Your task to perform on an android device: Turn off the flashlight Image 0: 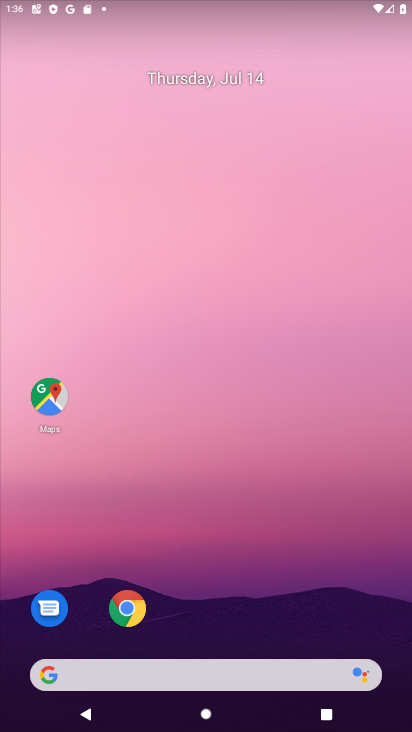
Step 0: press home button
Your task to perform on an android device: Turn off the flashlight Image 1: 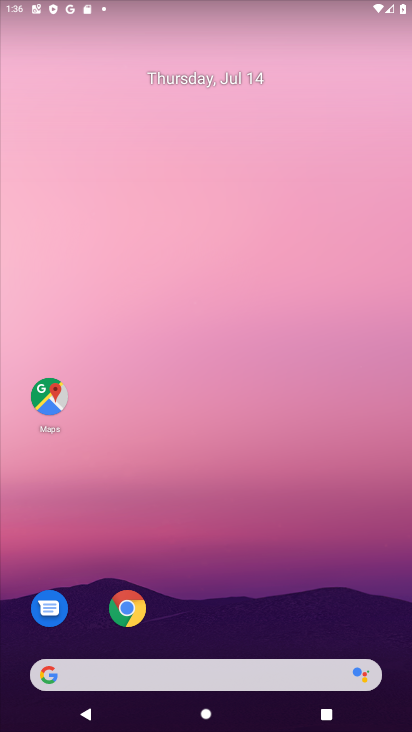
Step 1: drag from (277, 684) to (195, 166)
Your task to perform on an android device: Turn off the flashlight Image 2: 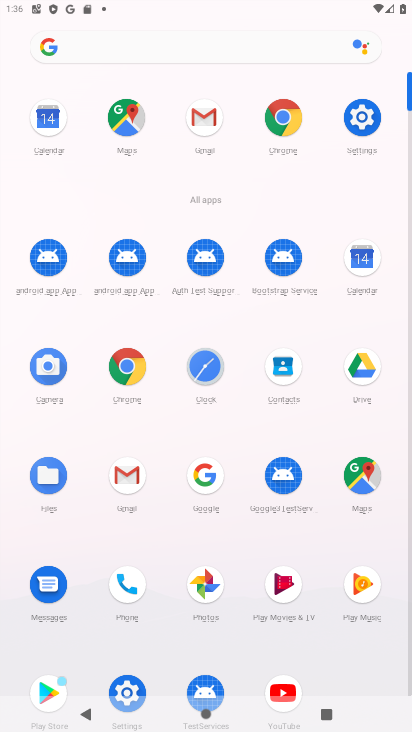
Step 2: click (352, 135)
Your task to perform on an android device: Turn off the flashlight Image 3: 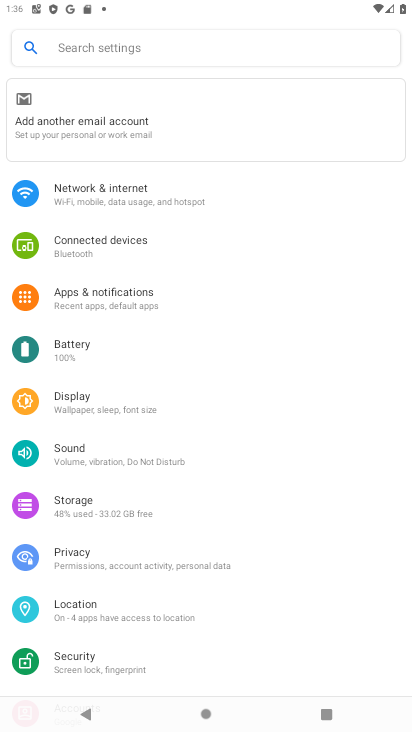
Step 3: click (102, 54)
Your task to perform on an android device: Turn off the flashlight Image 4: 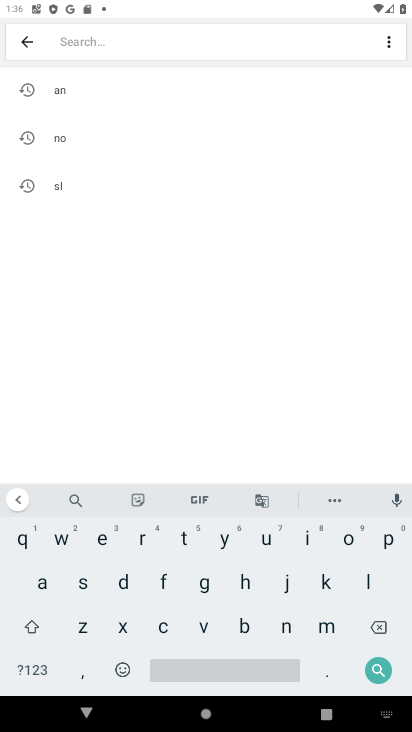
Step 4: click (162, 573)
Your task to perform on an android device: Turn off the flashlight Image 5: 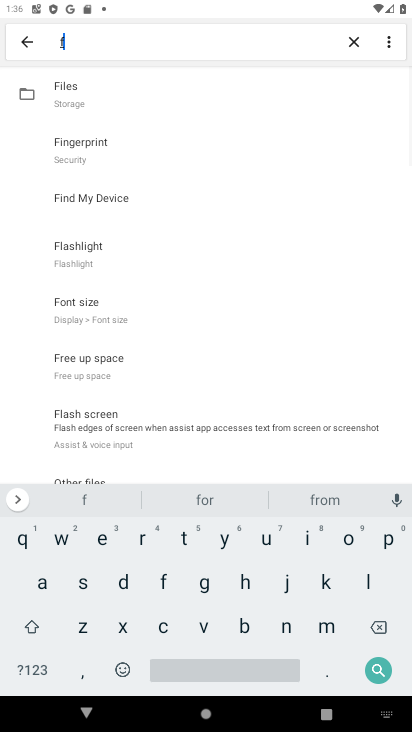
Step 5: click (369, 580)
Your task to perform on an android device: Turn off the flashlight Image 6: 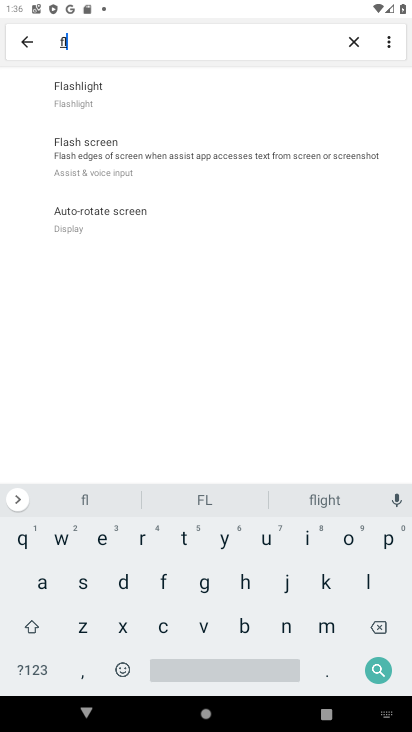
Step 6: click (110, 92)
Your task to perform on an android device: Turn off the flashlight Image 7: 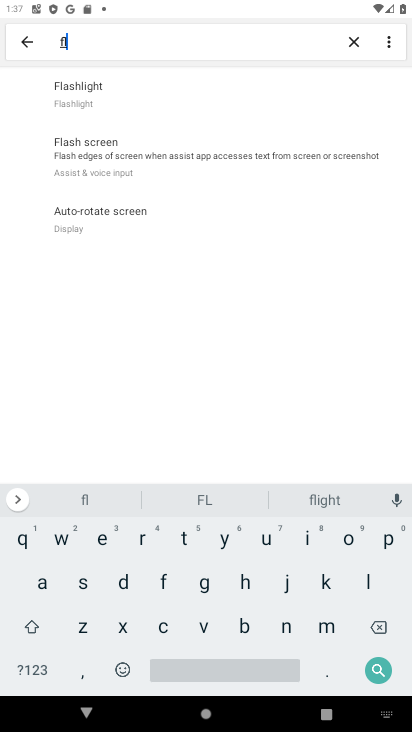
Step 7: task complete